Your task to perform on an android device: Open eBay Image 0: 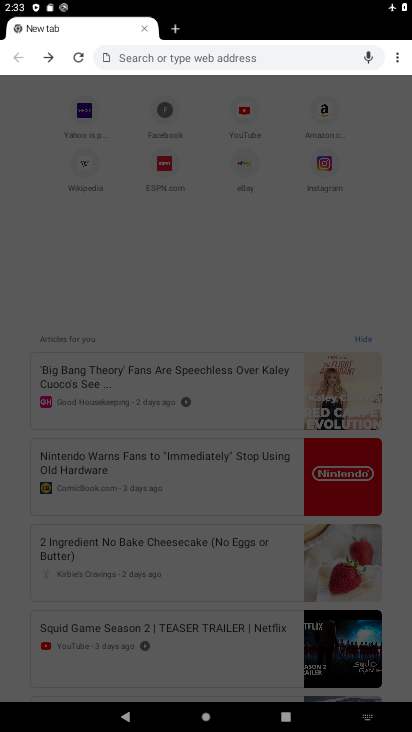
Step 0: click (174, 61)
Your task to perform on an android device: Open eBay Image 1: 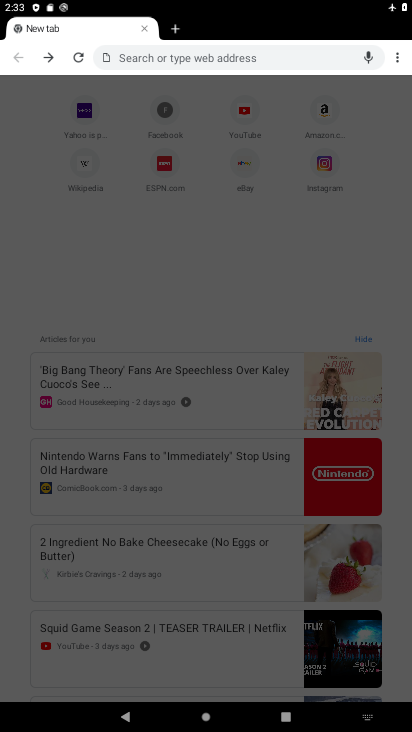
Step 1: click (166, 64)
Your task to perform on an android device: Open eBay Image 2: 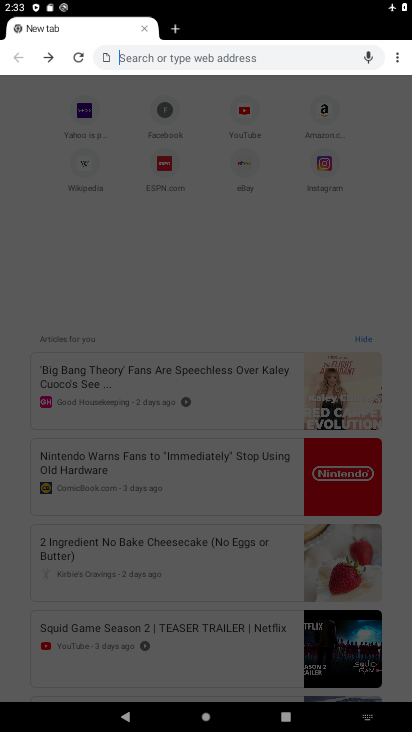
Step 2: click (163, 67)
Your task to perform on an android device: Open eBay Image 3: 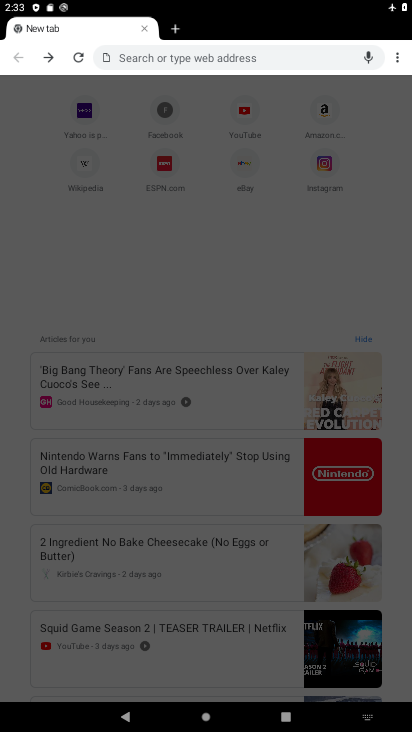
Step 3: click (154, 76)
Your task to perform on an android device: Open eBay Image 4: 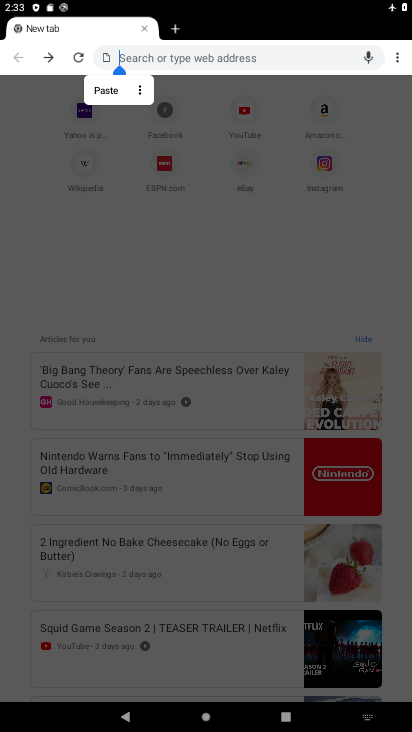
Step 4: press back button
Your task to perform on an android device: Open eBay Image 5: 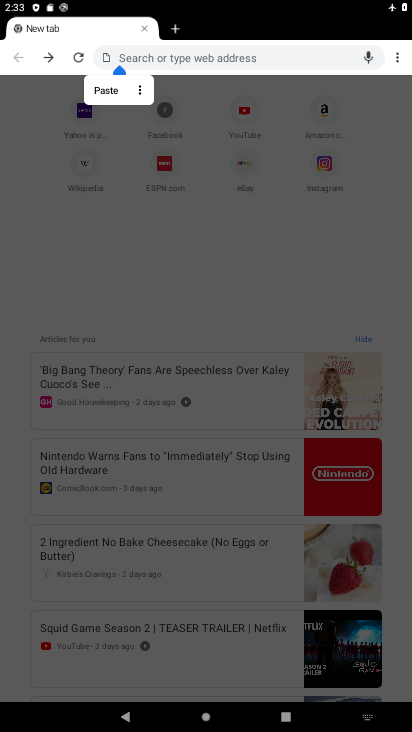
Step 5: press back button
Your task to perform on an android device: Open eBay Image 6: 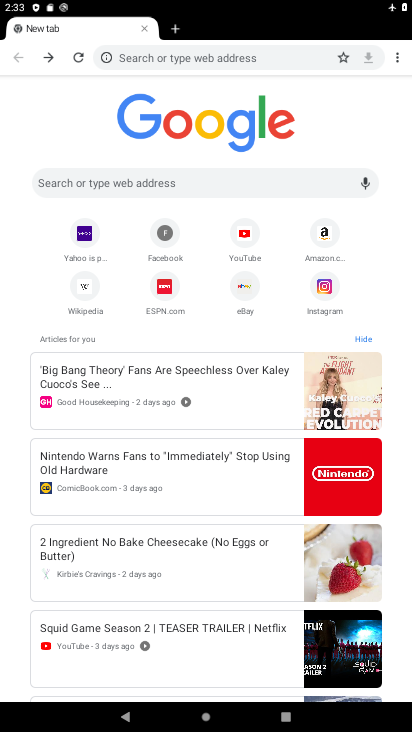
Step 6: click (241, 280)
Your task to perform on an android device: Open eBay Image 7: 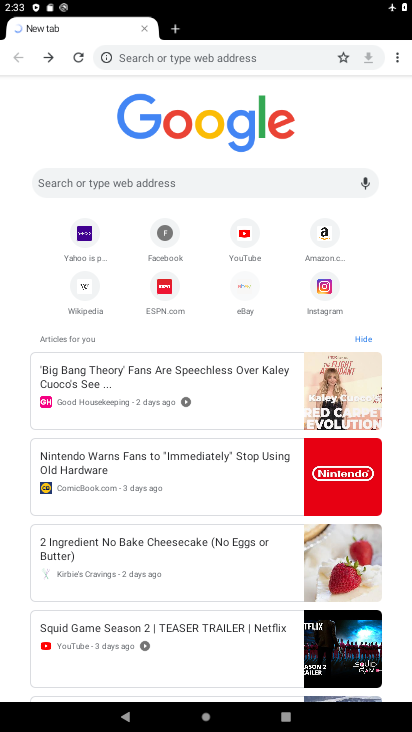
Step 7: click (232, 290)
Your task to perform on an android device: Open eBay Image 8: 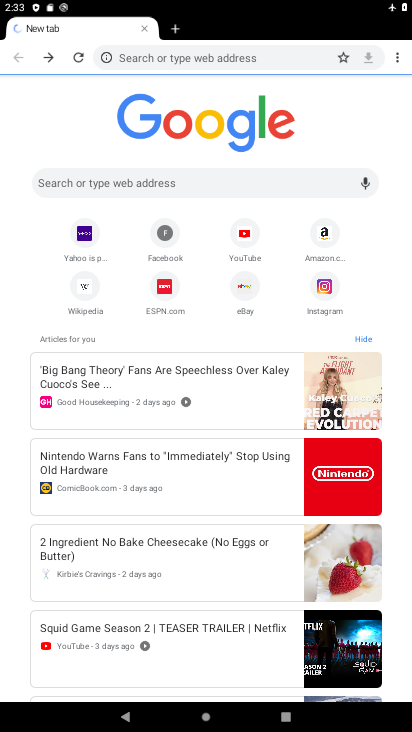
Step 8: click (232, 288)
Your task to perform on an android device: Open eBay Image 9: 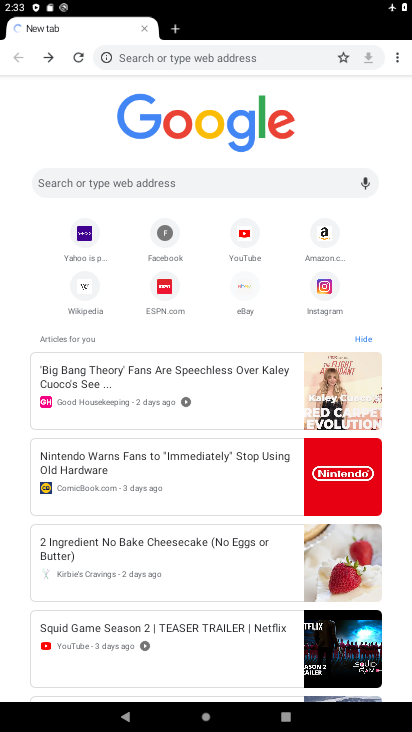
Step 9: click (231, 287)
Your task to perform on an android device: Open eBay Image 10: 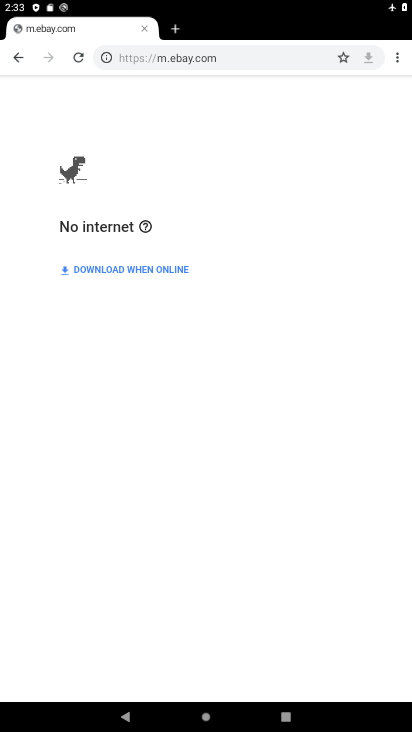
Step 10: task complete